Your task to perform on an android device: uninstall "Yahoo Mail" Image 0: 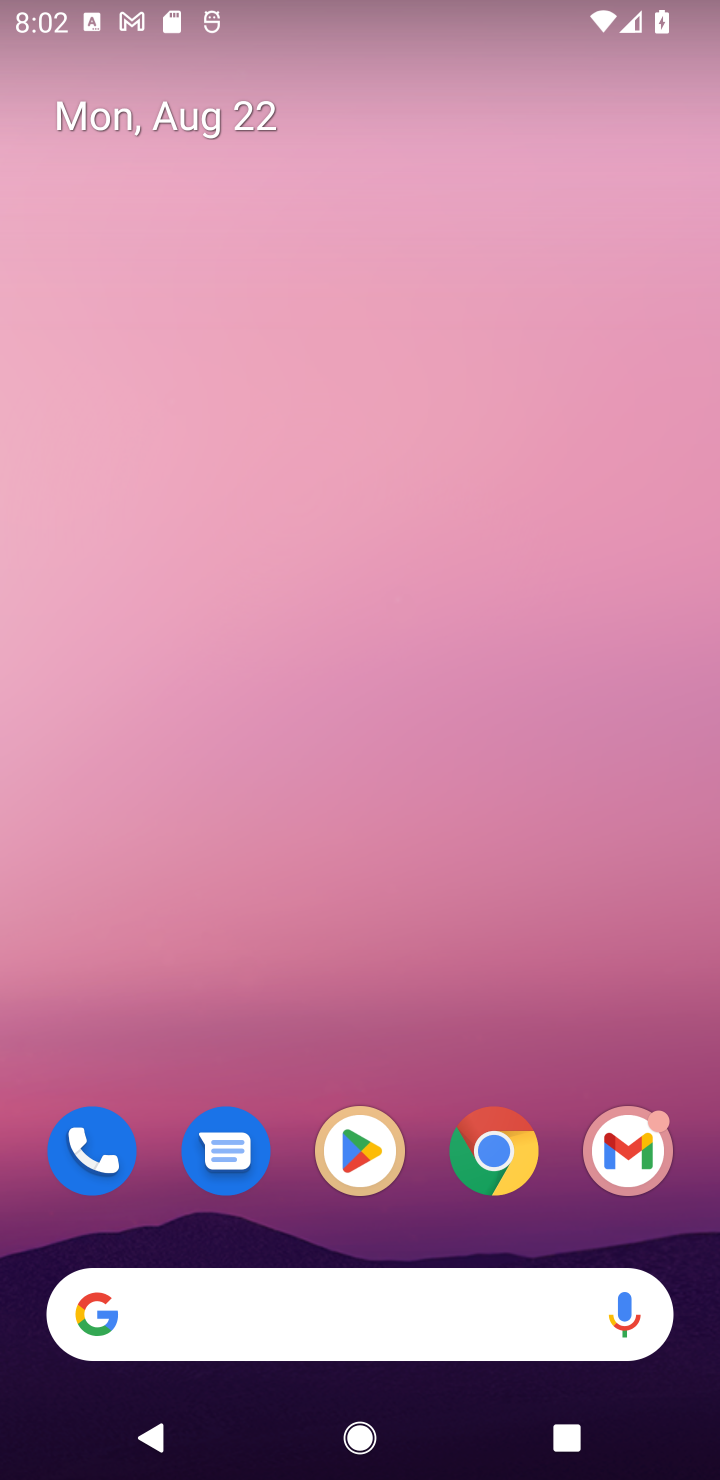
Step 0: press home button
Your task to perform on an android device: uninstall "Yahoo Mail" Image 1: 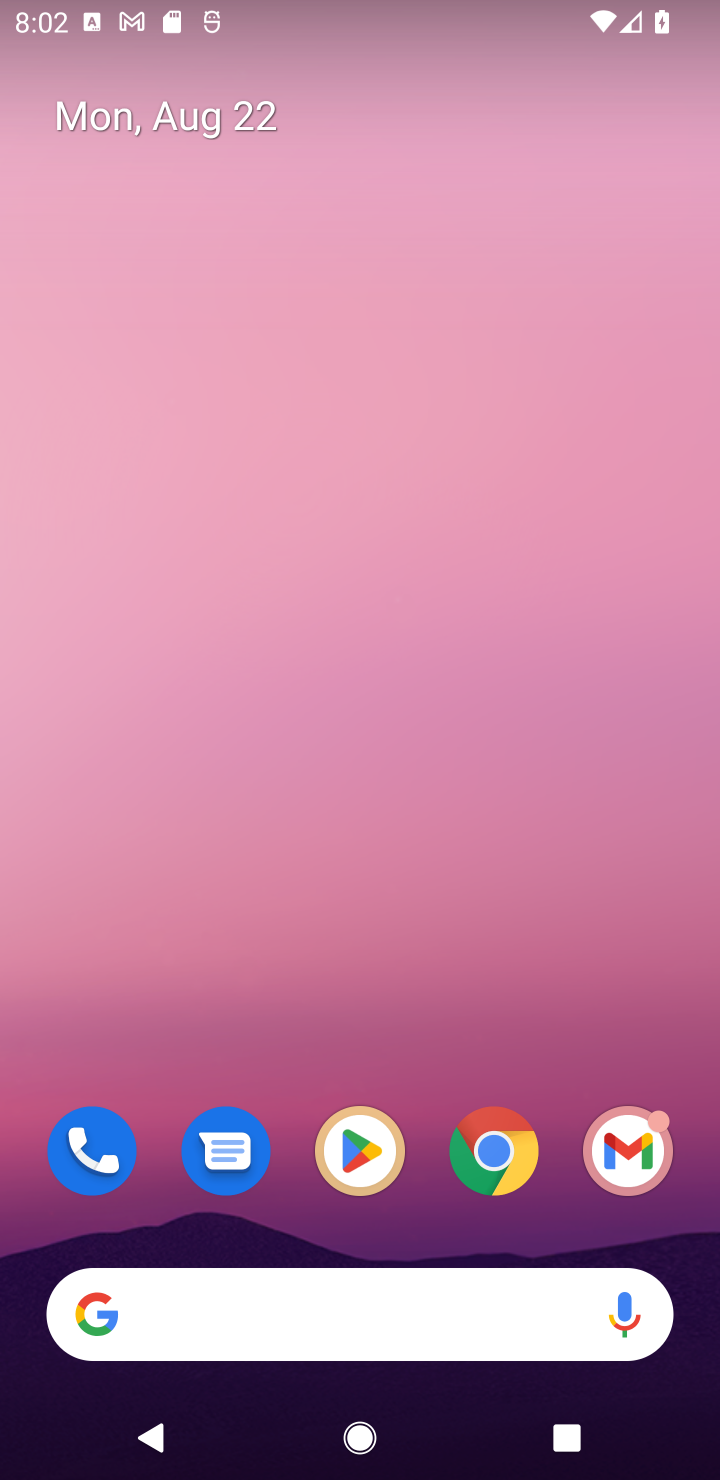
Step 1: click (368, 1143)
Your task to perform on an android device: uninstall "Yahoo Mail" Image 2: 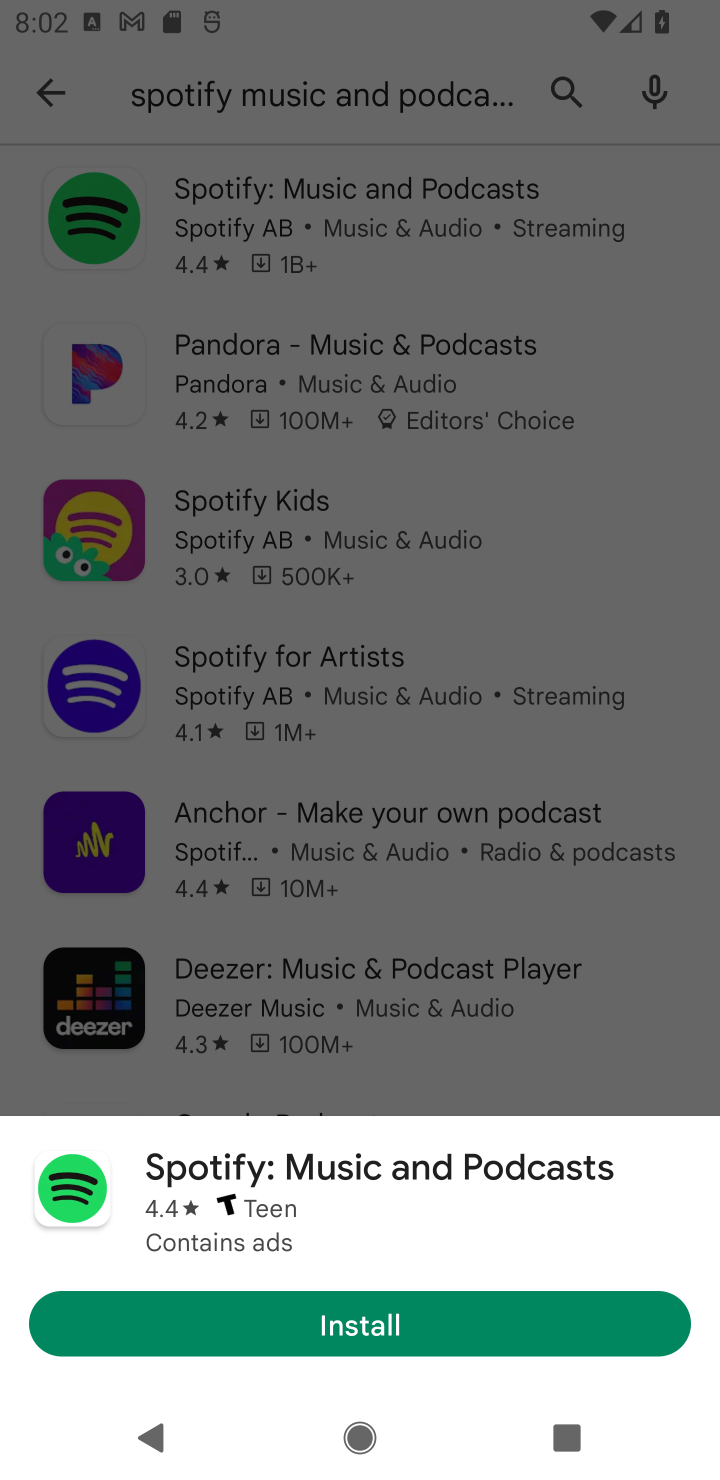
Step 2: click (368, 1150)
Your task to perform on an android device: uninstall "Yahoo Mail" Image 3: 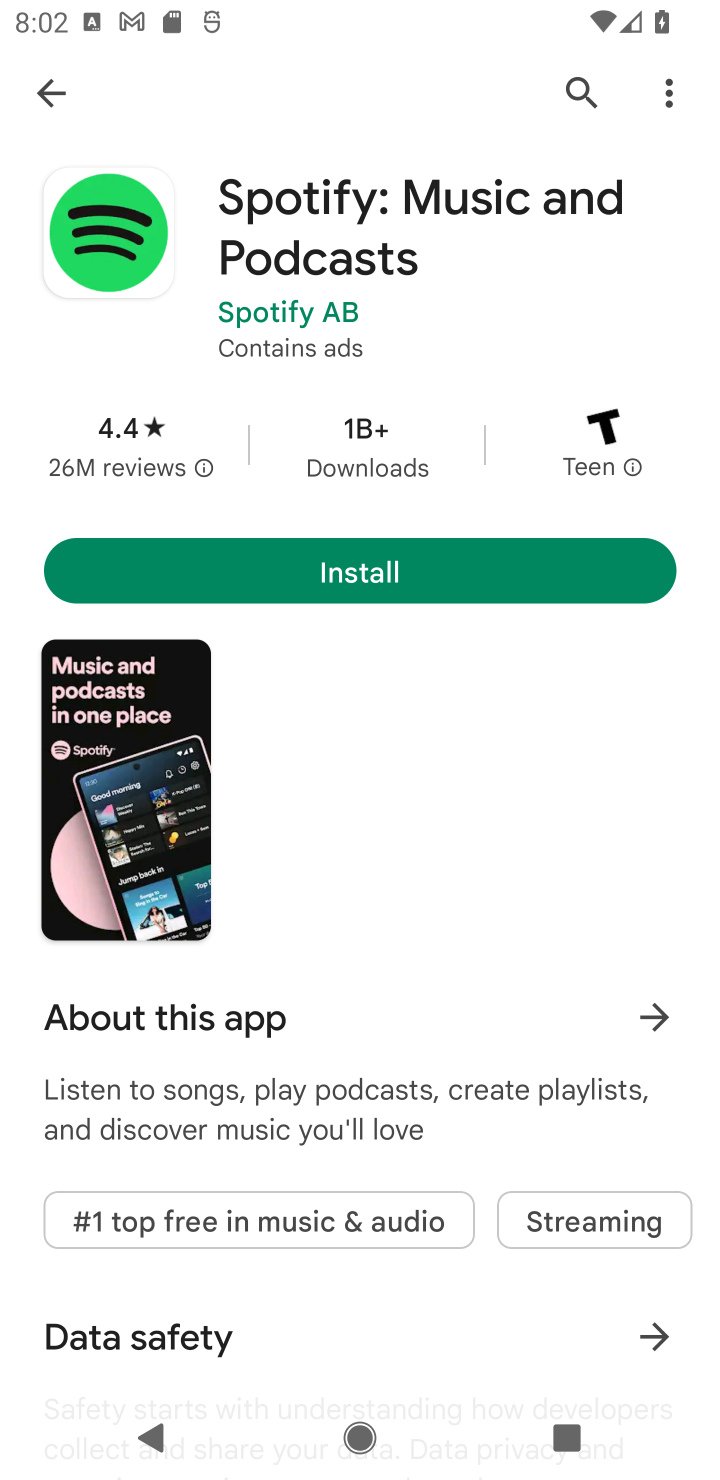
Step 3: click (565, 84)
Your task to perform on an android device: uninstall "Yahoo Mail" Image 4: 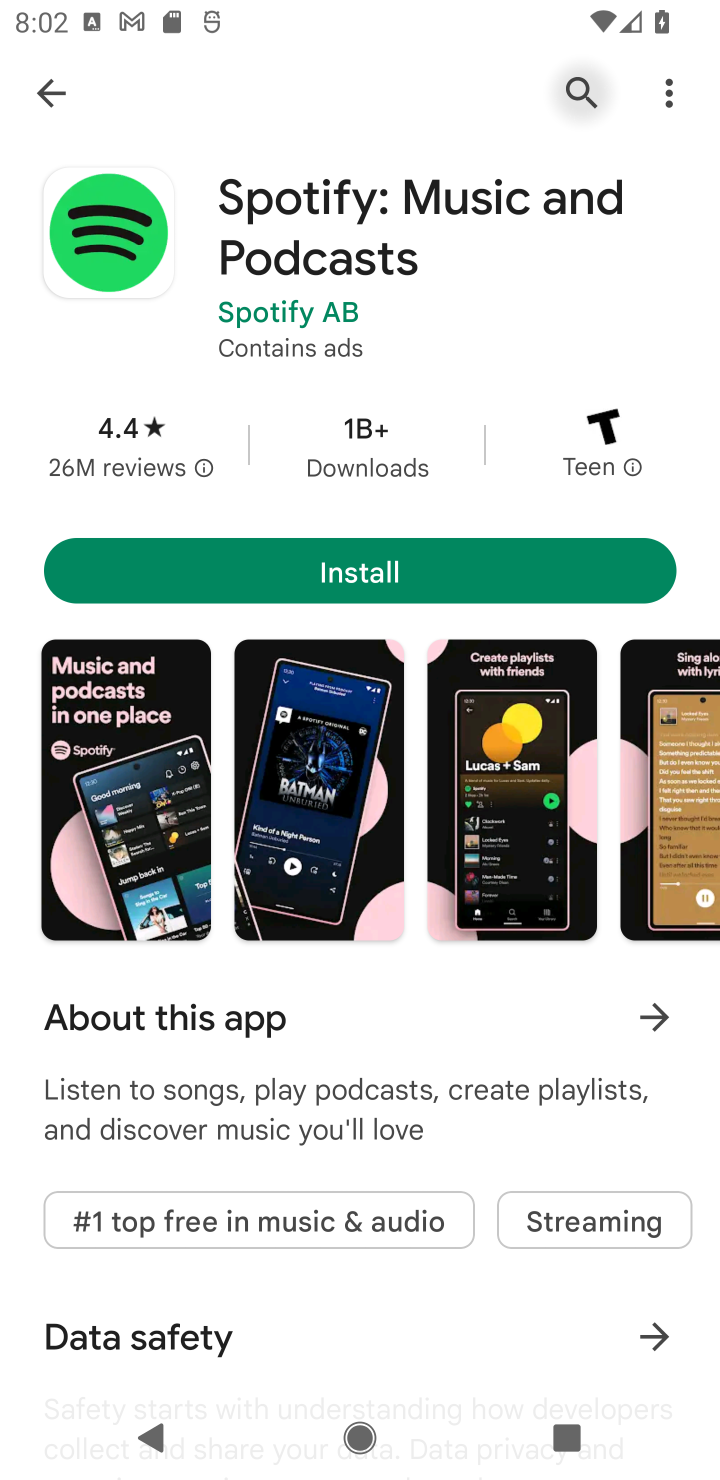
Step 4: click (570, 80)
Your task to perform on an android device: uninstall "Yahoo Mail" Image 5: 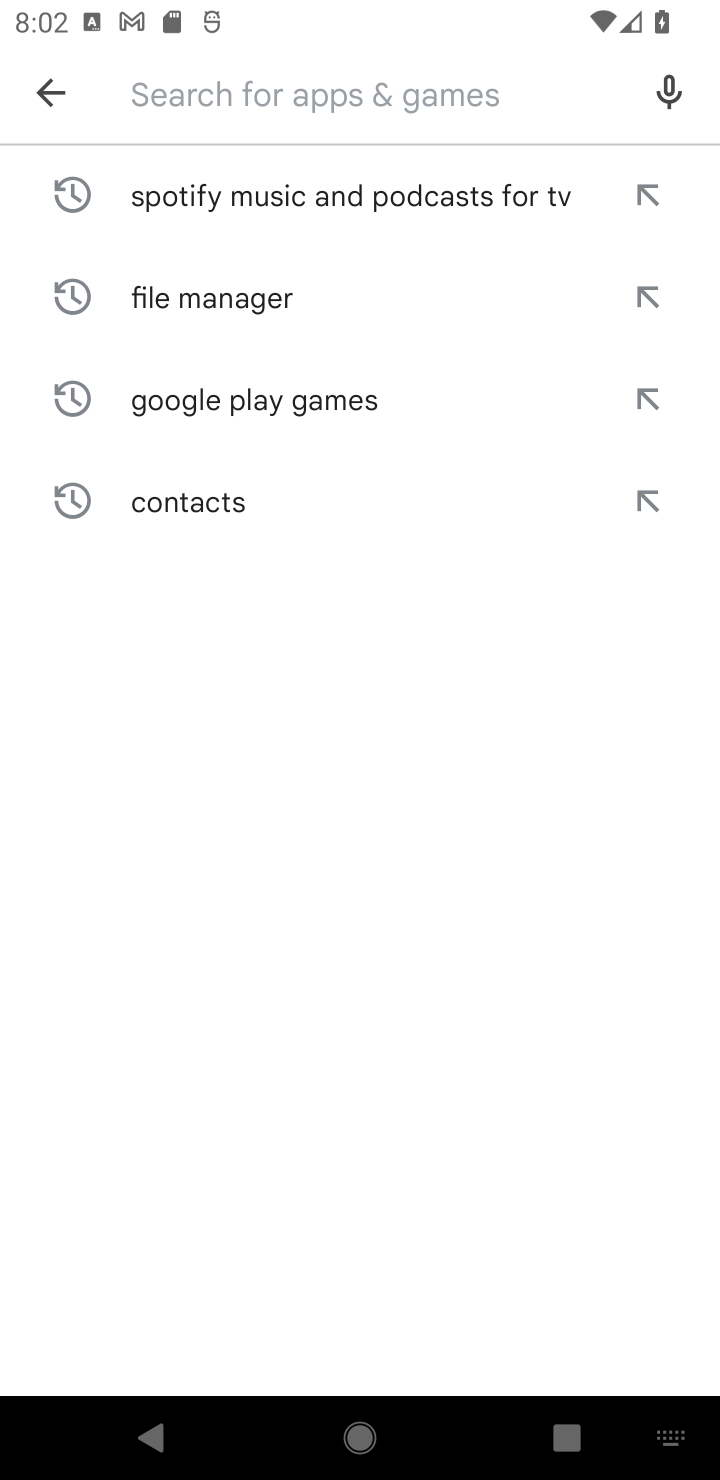
Step 5: type "Yahoo Mail"
Your task to perform on an android device: uninstall "Yahoo Mail" Image 6: 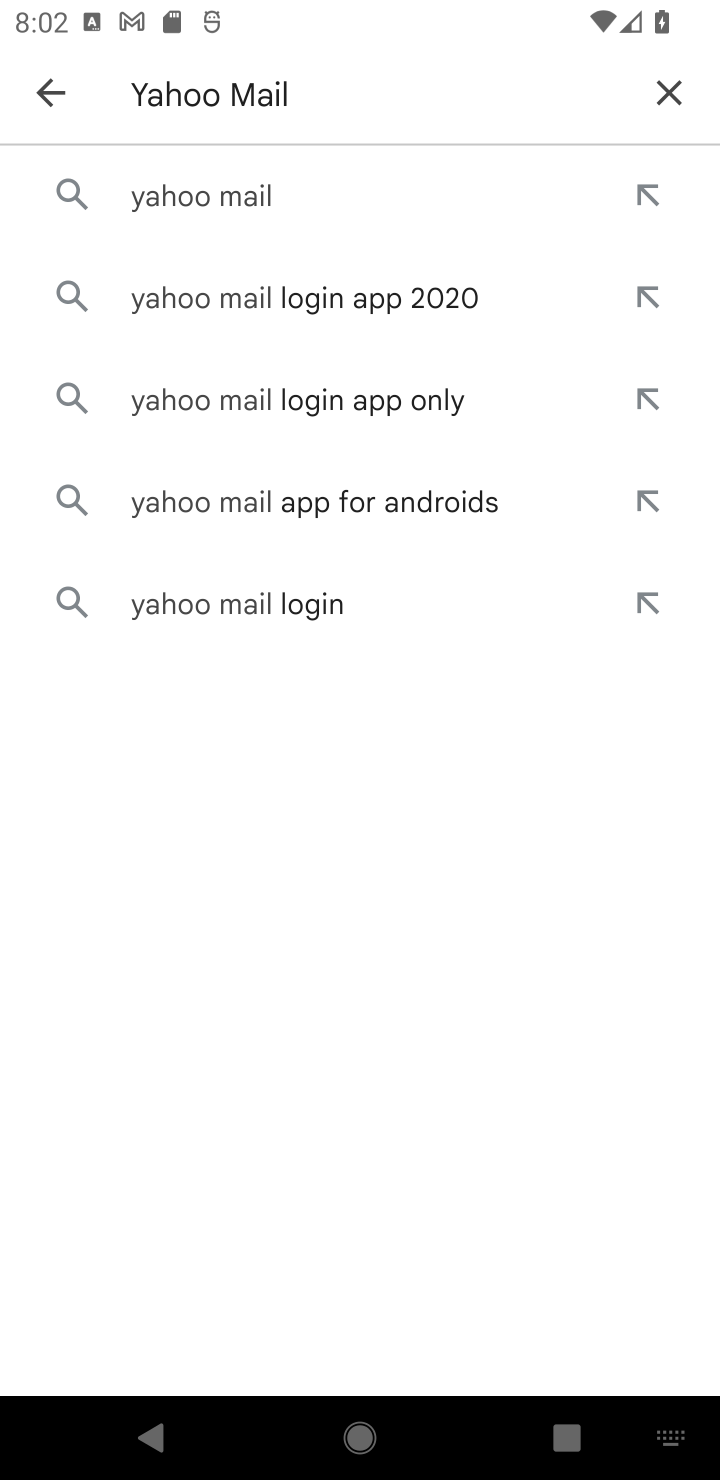
Step 6: click (232, 196)
Your task to perform on an android device: uninstall "Yahoo Mail" Image 7: 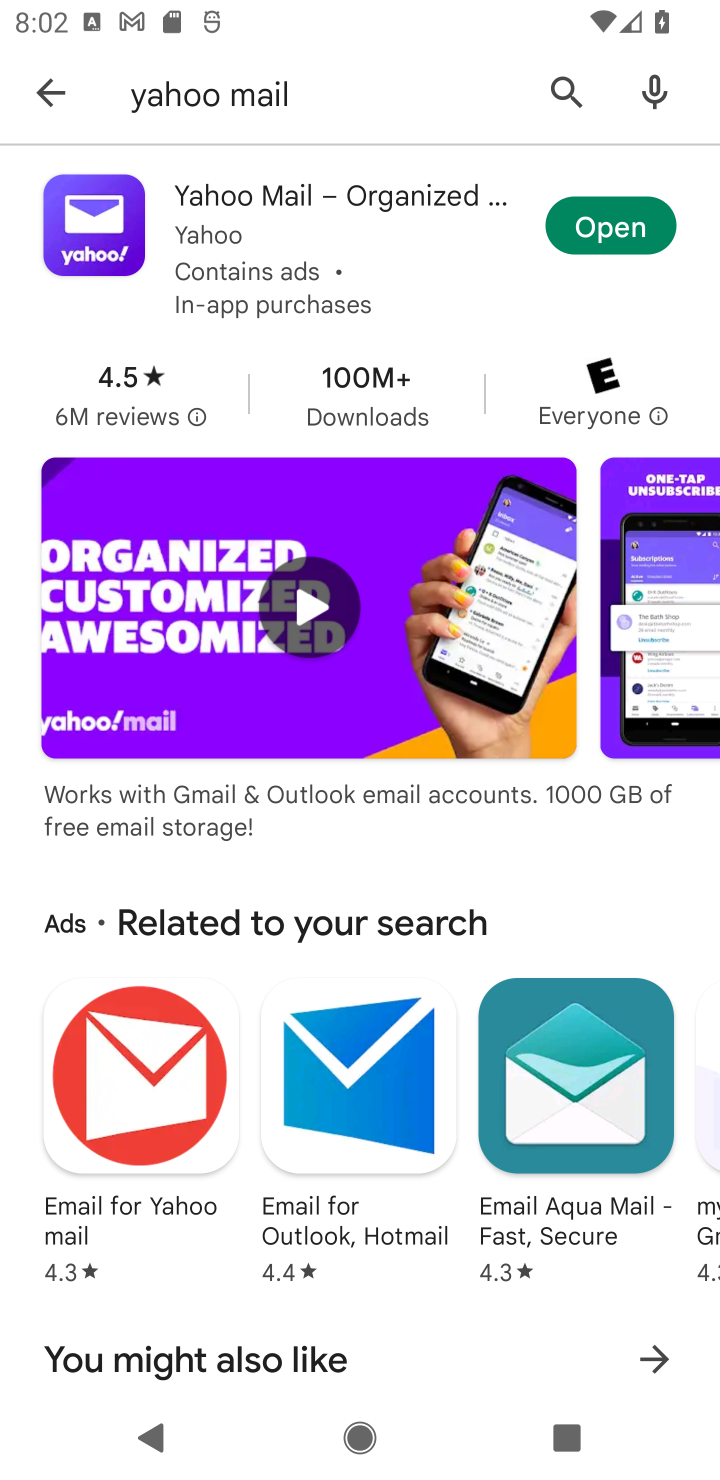
Step 7: click (117, 222)
Your task to perform on an android device: uninstall "Yahoo Mail" Image 8: 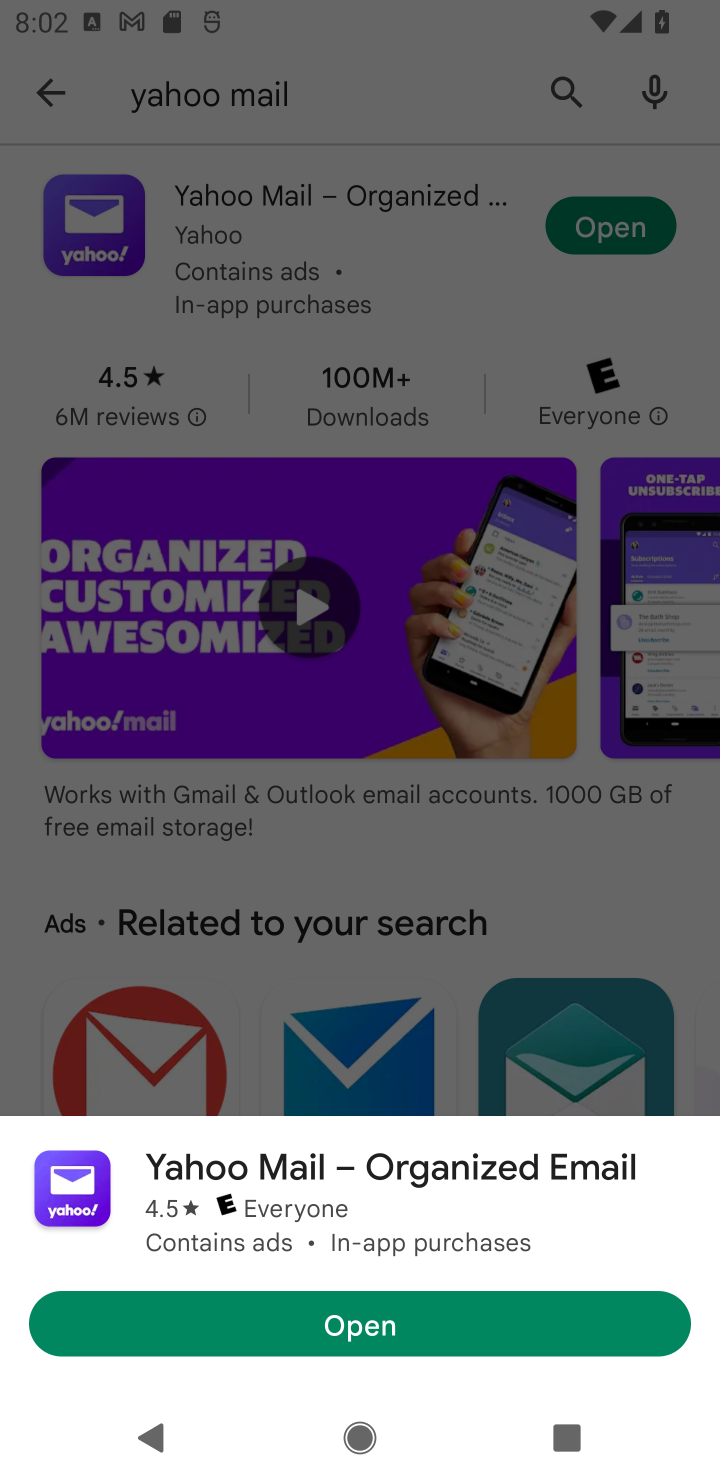
Step 8: click (223, 207)
Your task to perform on an android device: uninstall "Yahoo Mail" Image 9: 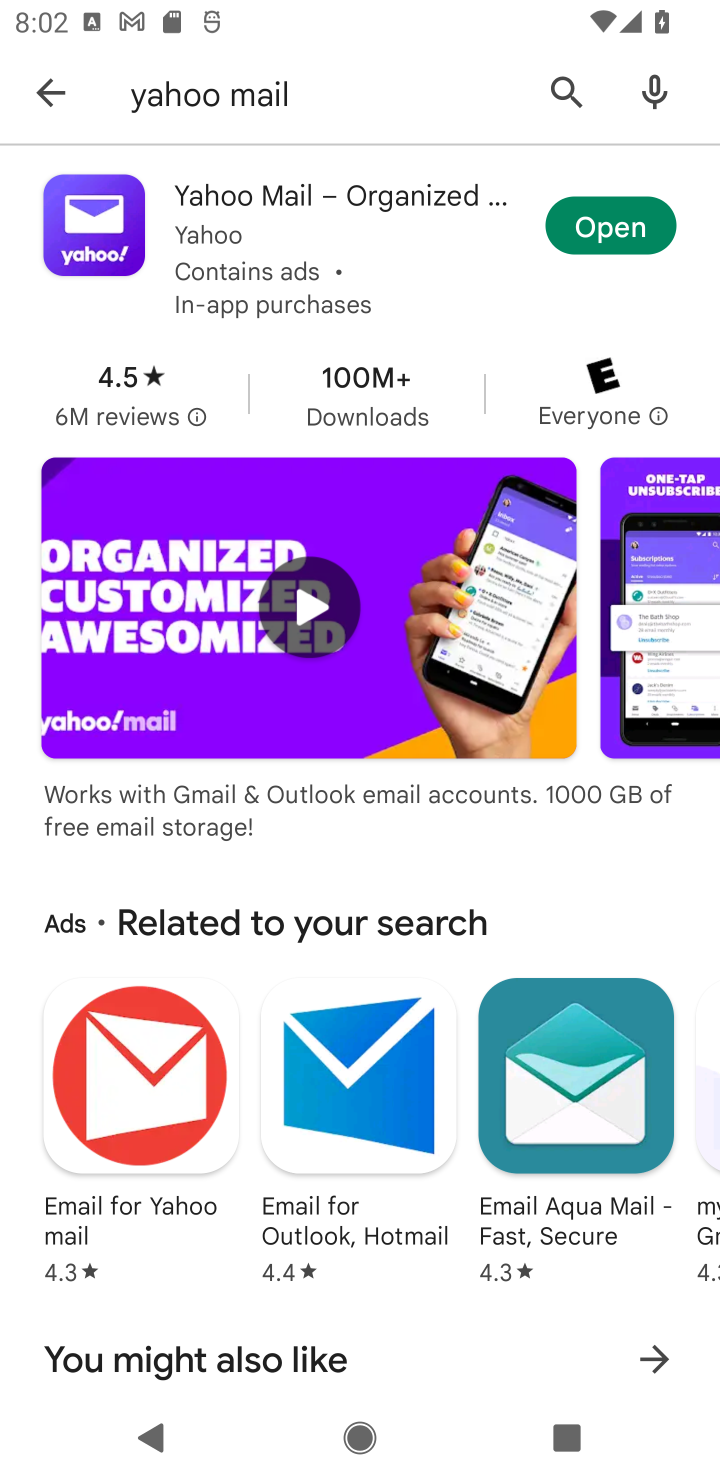
Step 9: click (221, 205)
Your task to perform on an android device: uninstall "Yahoo Mail" Image 10: 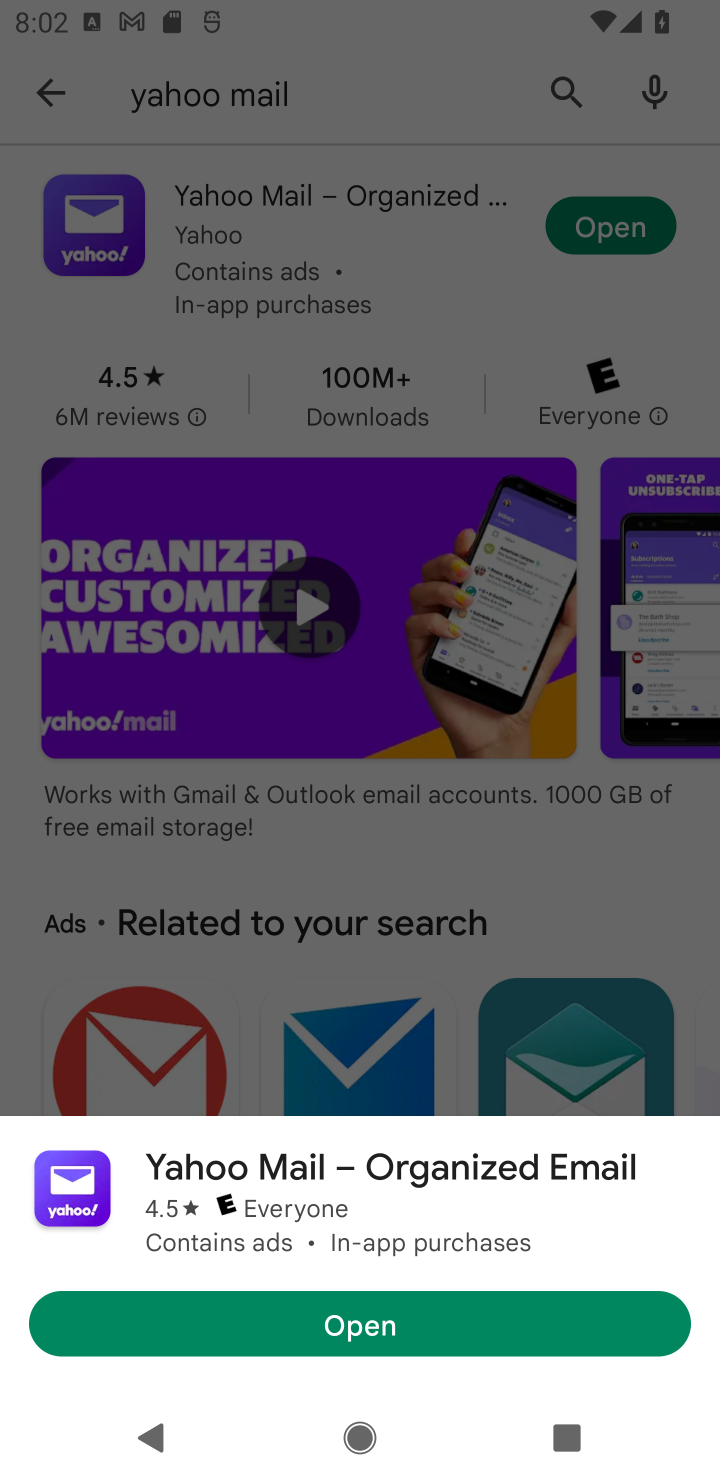
Step 10: click (221, 207)
Your task to perform on an android device: uninstall "Yahoo Mail" Image 11: 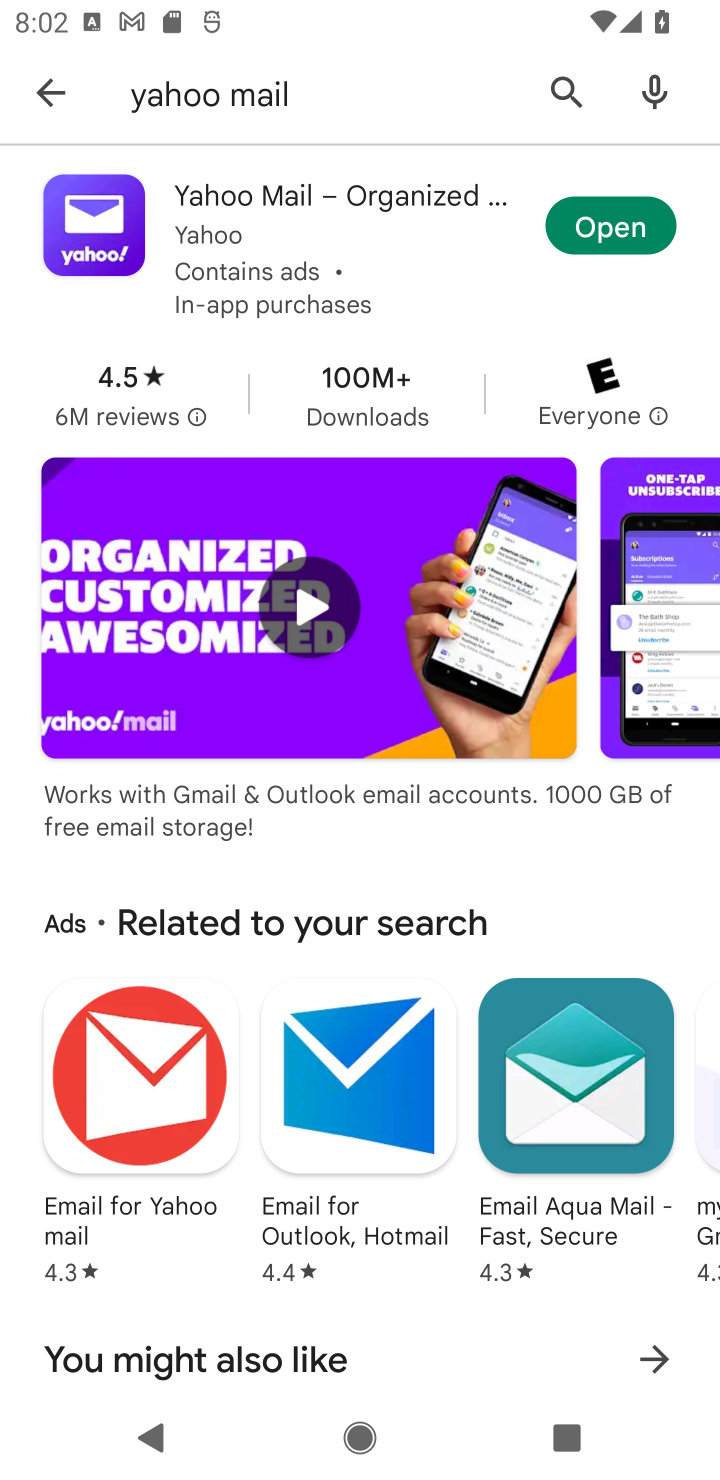
Step 11: click (219, 207)
Your task to perform on an android device: uninstall "Yahoo Mail" Image 12: 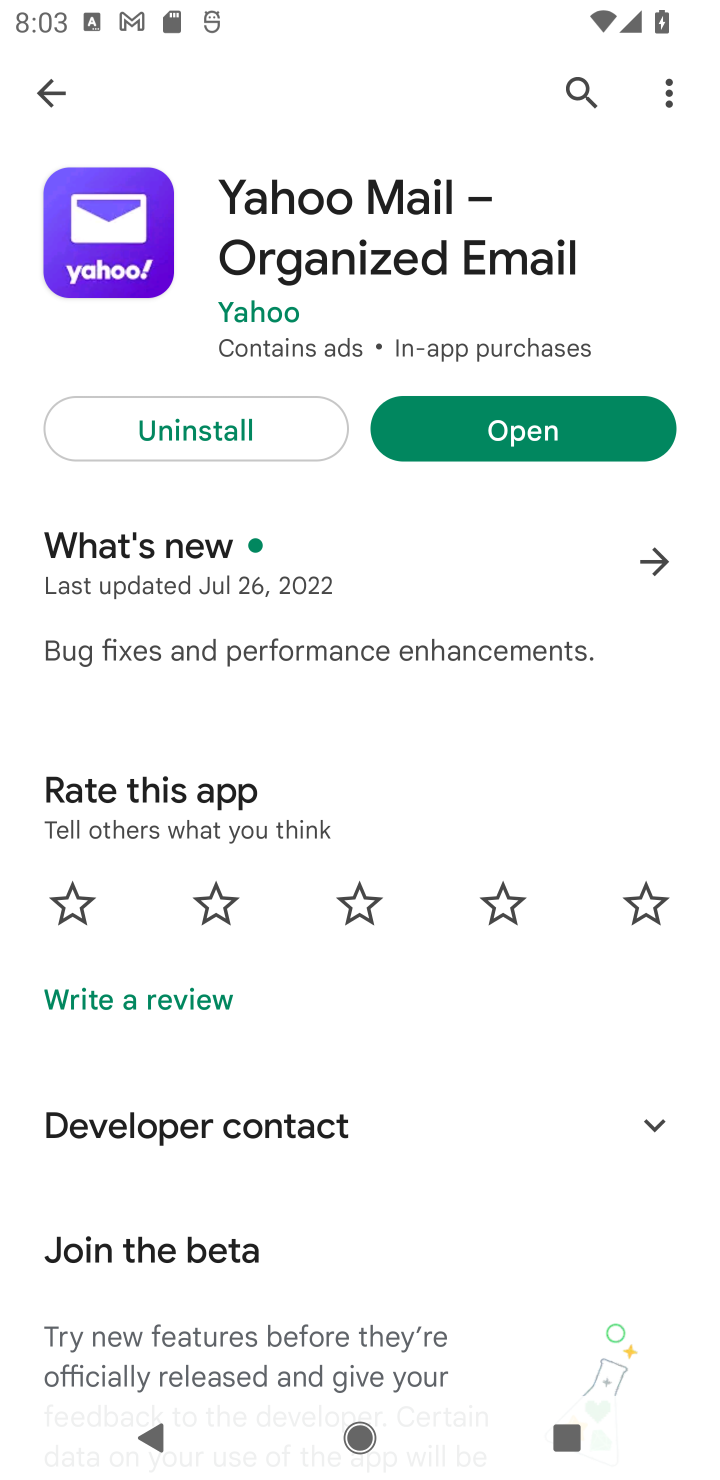
Step 12: click (225, 433)
Your task to perform on an android device: uninstall "Yahoo Mail" Image 13: 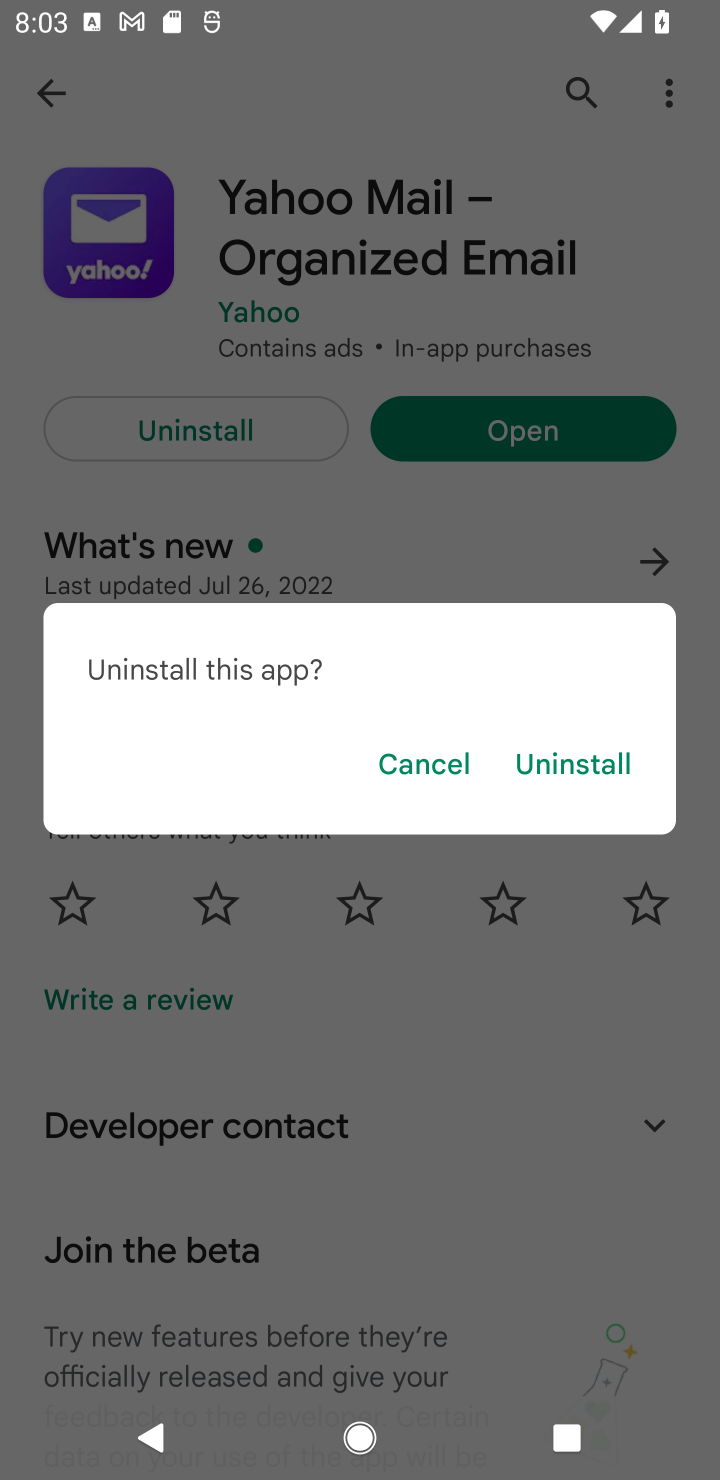
Step 13: click (543, 766)
Your task to perform on an android device: uninstall "Yahoo Mail" Image 14: 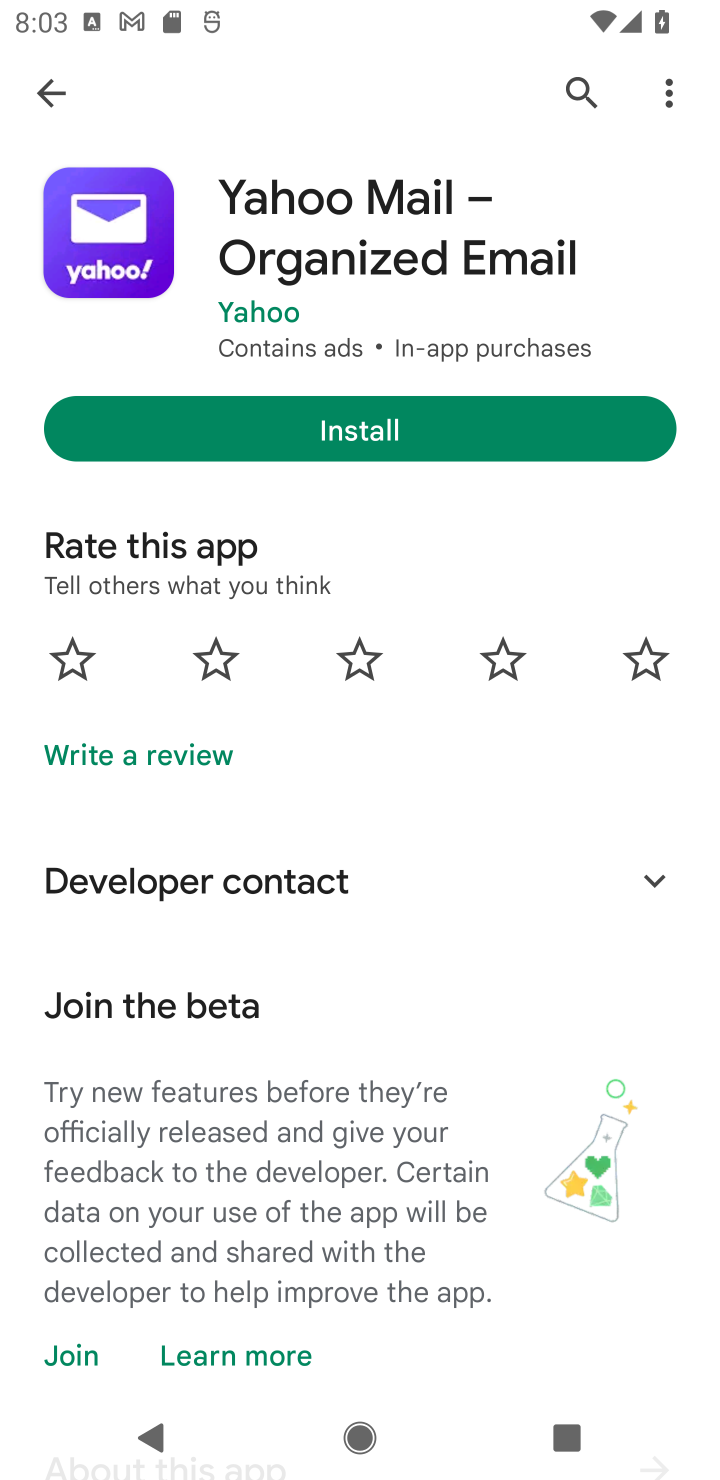
Step 14: task complete